Your task to perform on an android device: turn smart compose on in the gmail app Image 0: 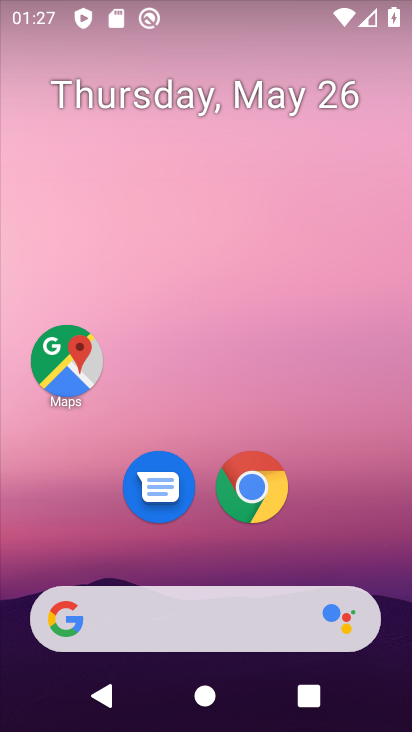
Step 0: drag from (147, 622) to (197, 6)
Your task to perform on an android device: turn smart compose on in the gmail app Image 1: 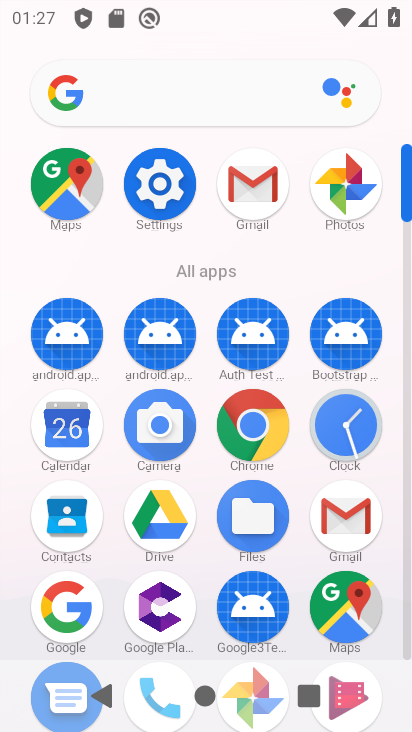
Step 1: click (324, 524)
Your task to perform on an android device: turn smart compose on in the gmail app Image 2: 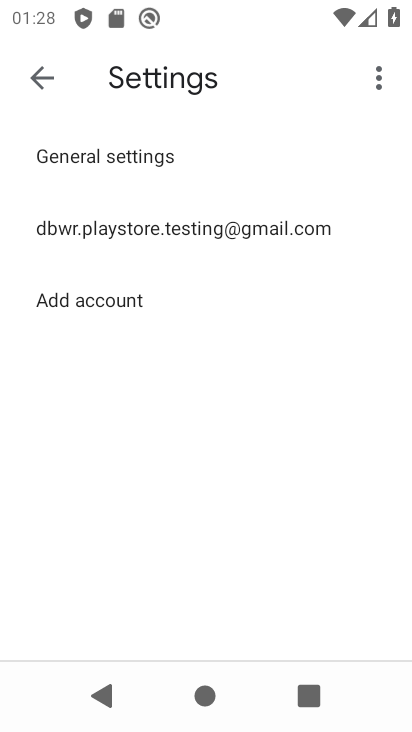
Step 2: click (144, 221)
Your task to perform on an android device: turn smart compose on in the gmail app Image 3: 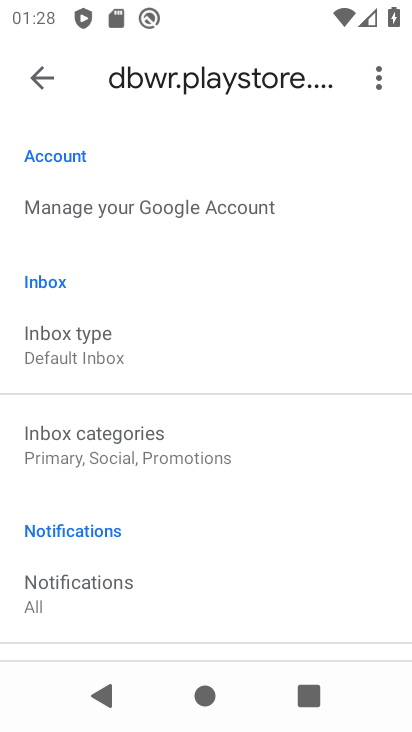
Step 3: task complete